Your task to perform on an android device: Do I have any events tomorrow? Image 0: 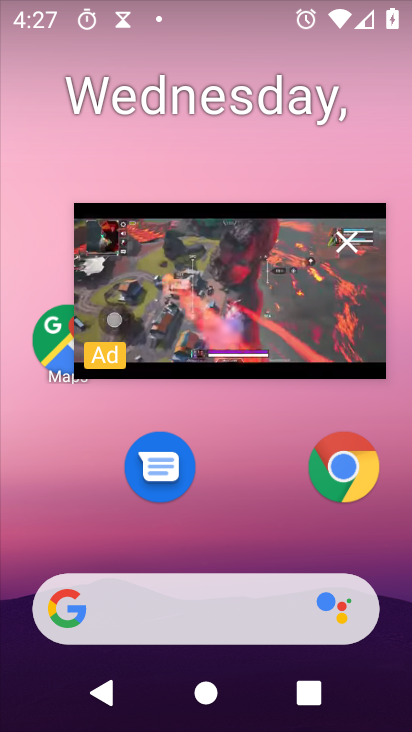
Step 0: click (344, 241)
Your task to perform on an android device: Do I have any events tomorrow? Image 1: 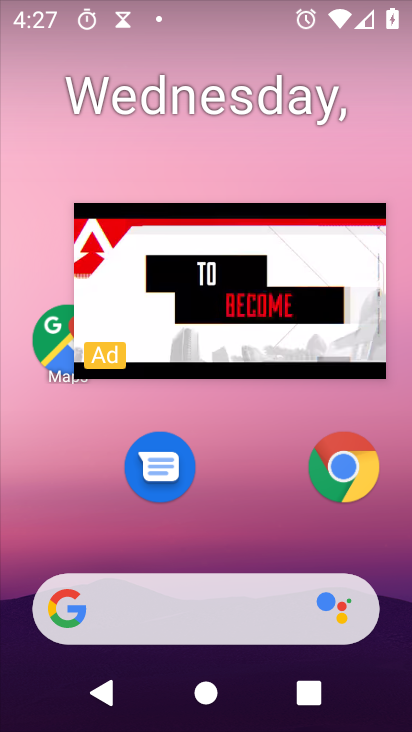
Step 1: drag from (253, 267) to (284, 728)
Your task to perform on an android device: Do I have any events tomorrow? Image 2: 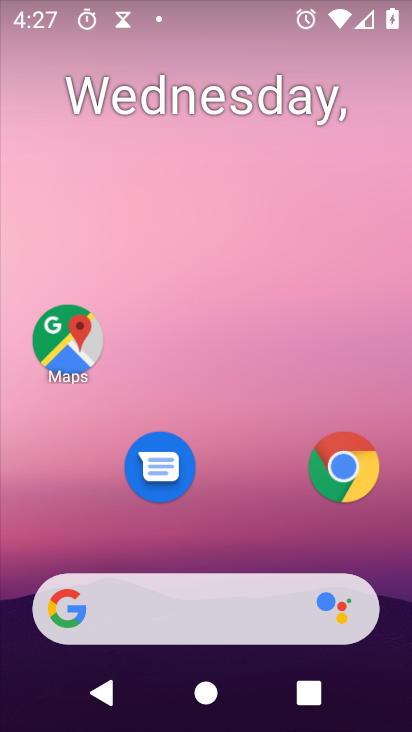
Step 2: drag from (238, 503) to (227, 117)
Your task to perform on an android device: Do I have any events tomorrow? Image 3: 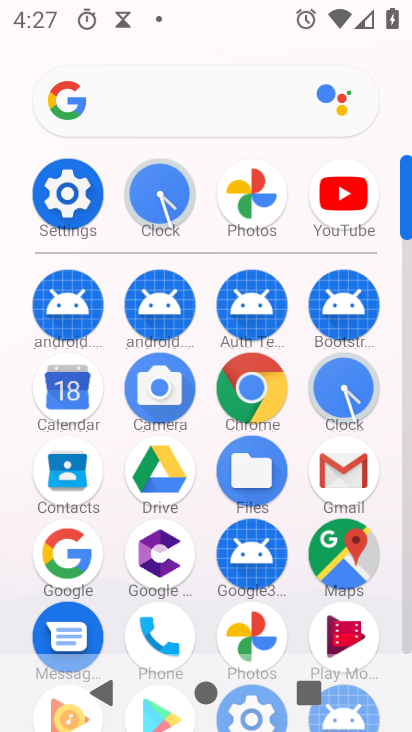
Step 3: click (70, 404)
Your task to perform on an android device: Do I have any events tomorrow? Image 4: 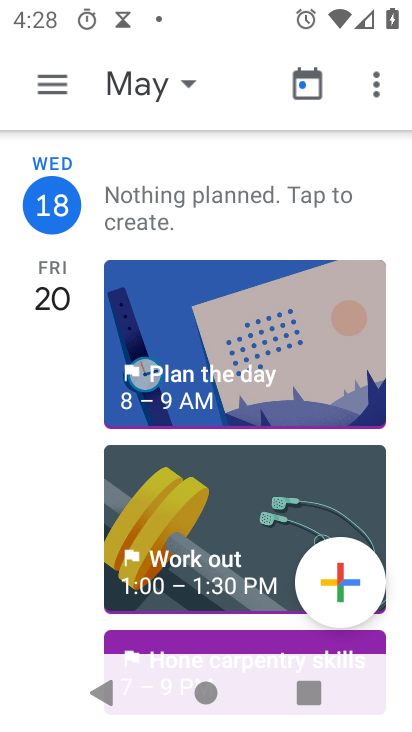
Step 4: click (70, 404)
Your task to perform on an android device: Do I have any events tomorrow? Image 5: 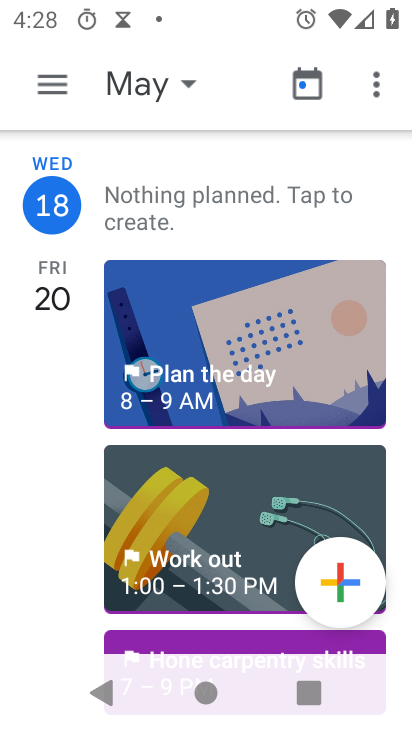
Step 5: click (184, 118)
Your task to perform on an android device: Do I have any events tomorrow? Image 6: 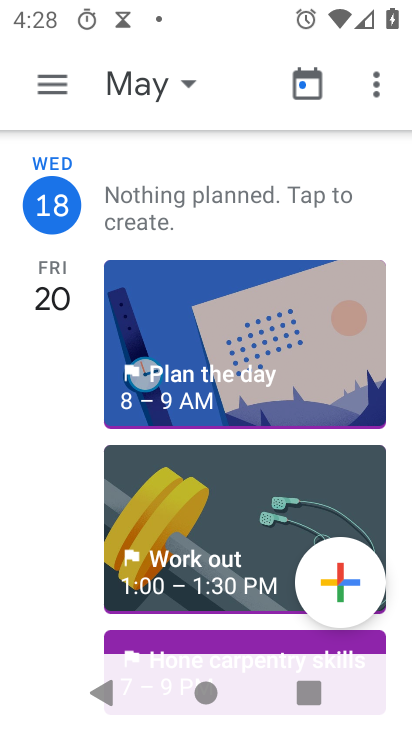
Step 6: click (180, 92)
Your task to perform on an android device: Do I have any events tomorrow? Image 7: 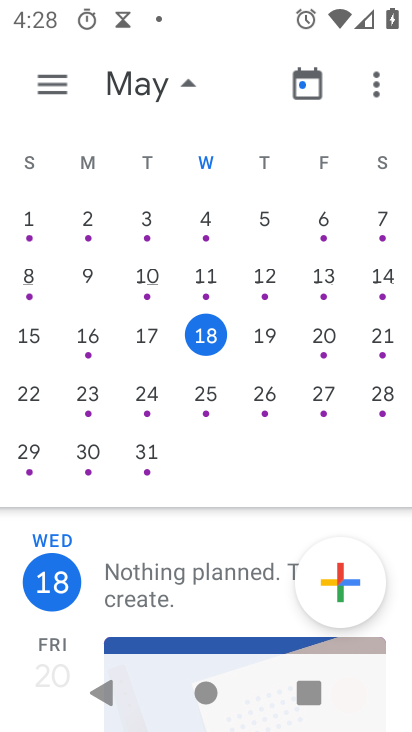
Step 7: click (279, 337)
Your task to perform on an android device: Do I have any events tomorrow? Image 8: 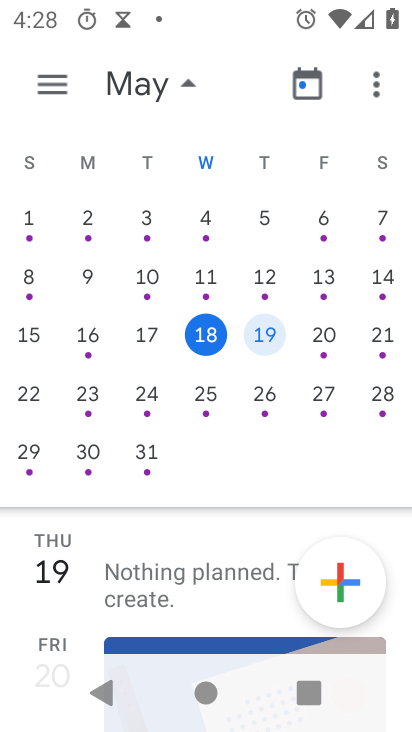
Step 8: click (180, 91)
Your task to perform on an android device: Do I have any events tomorrow? Image 9: 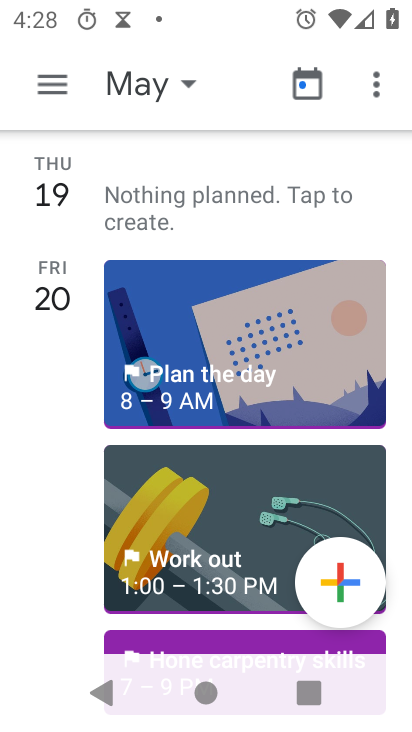
Step 9: task complete